Your task to perform on an android device: empty trash in the gmail app Image 0: 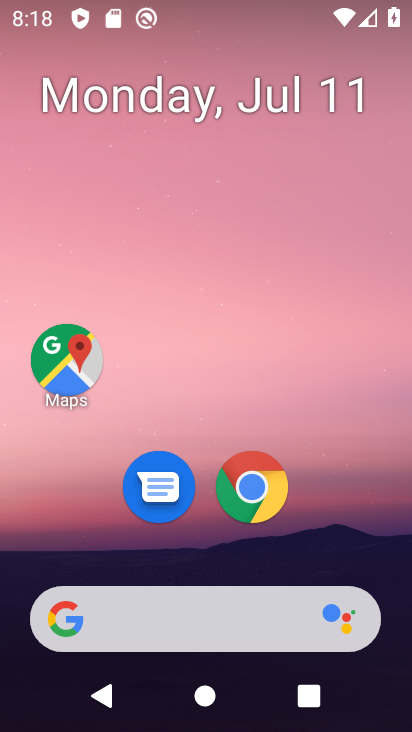
Step 0: drag from (176, 596) to (275, 13)
Your task to perform on an android device: empty trash in the gmail app Image 1: 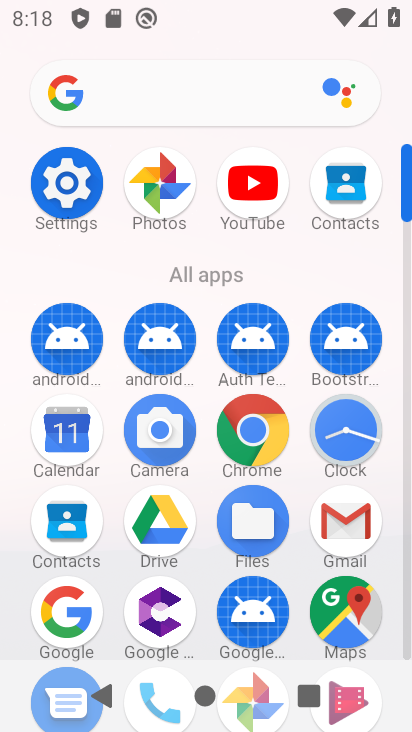
Step 1: click (340, 509)
Your task to perform on an android device: empty trash in the gmail app Image 2: 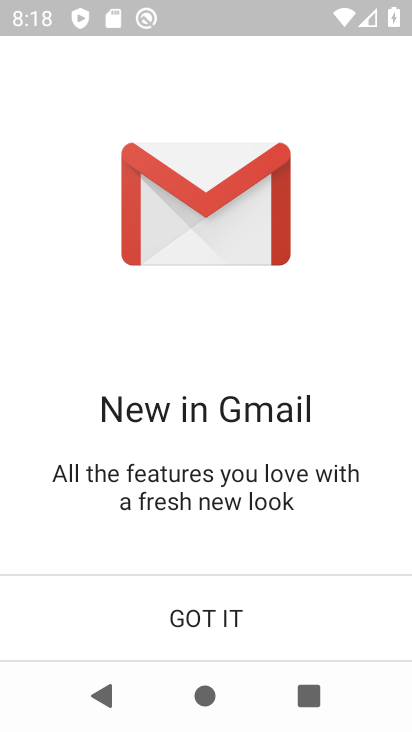
Step 2: click (190, 602)
Your task to perform on an android device: empty trash in the gmail app Image 3: 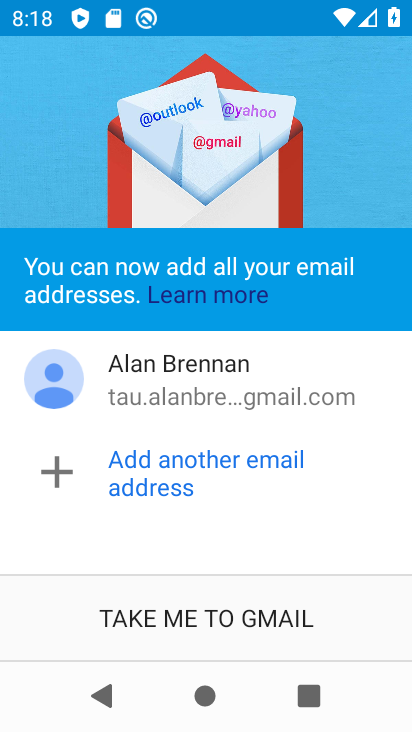
Step 3: click (192, 610)
Your task to perform on an android device: empty trash in the gmail app Image 4: 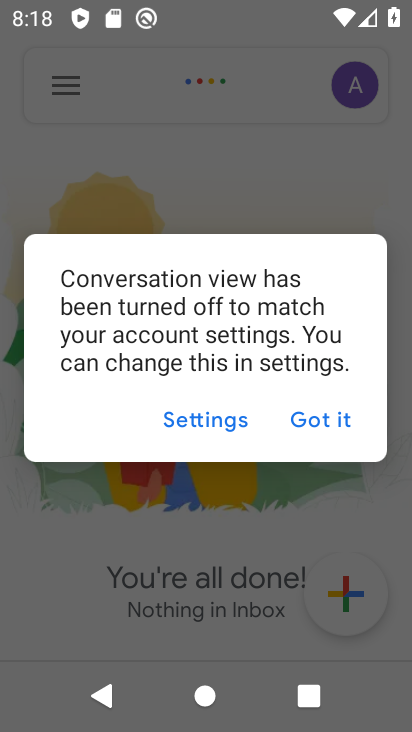
Step 4: click (320, 416)
Your task to perform on an android device: empty trash in the gmail app Image 5: 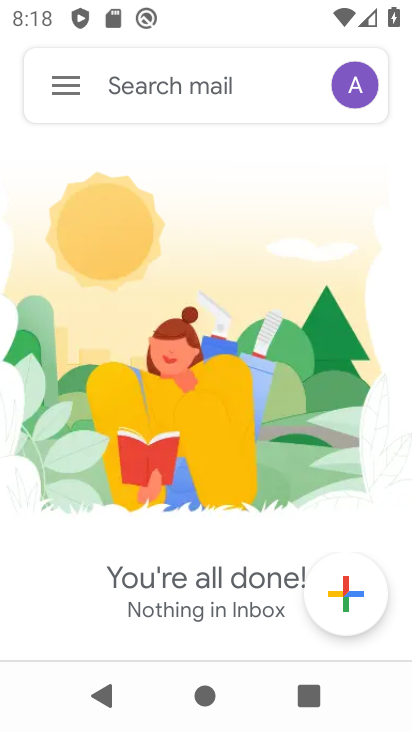
Step 5: click (56, 77)
Your task to perform on an android device: empty trash in the gmail app Image 6: 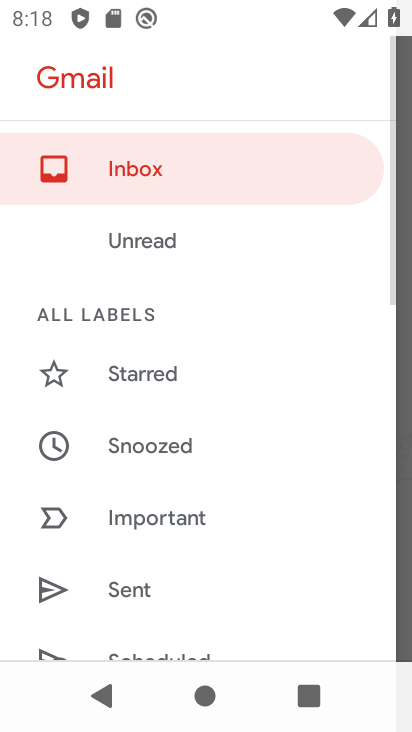
Step 6: drag from (135, 583) to (229, 135)
Your task to perform on an android device: empty trash in the gmail app Image 7: 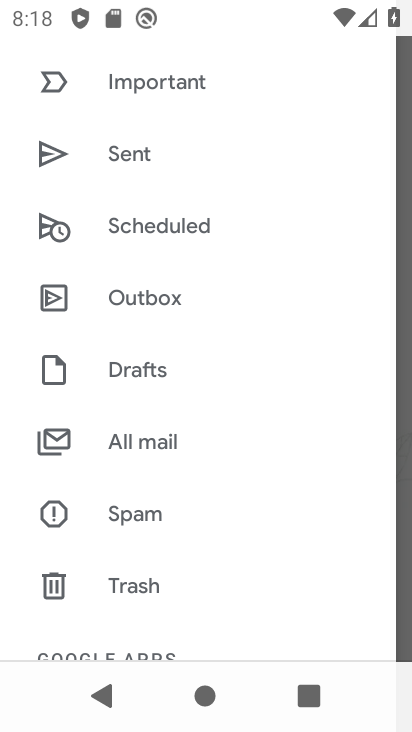
Step 7: click (110, 573)
Your task to perform on an android device: empty trash in the gmail app Image 8: 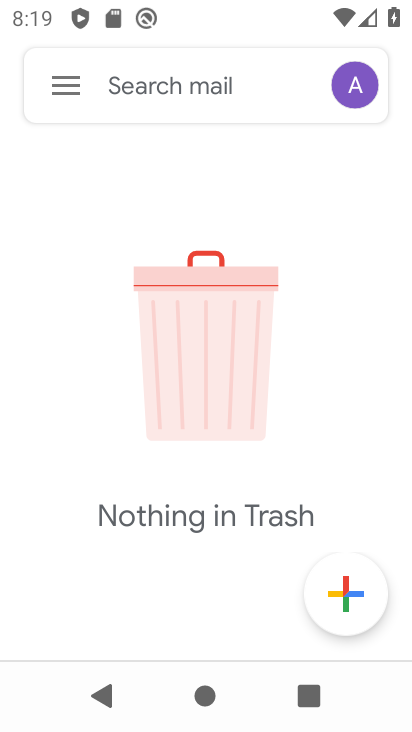
Step 8: task complete